Your task to perform on an android device: Go to display settings Image 0: 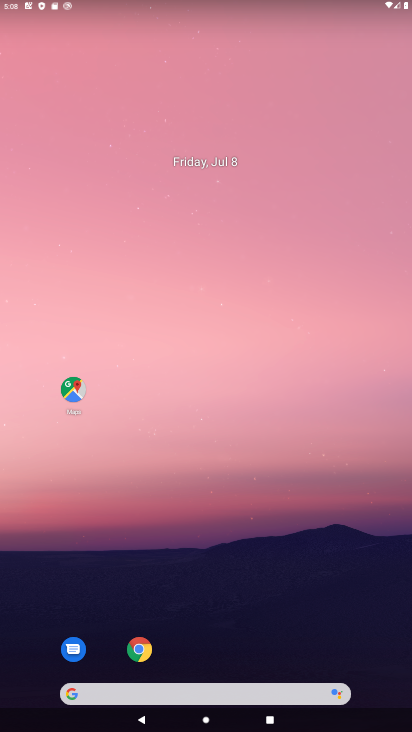
Step 0: drag from (291, 630) to (283, 123)
Your task to perform on an android device: Go to display settings Image 1: 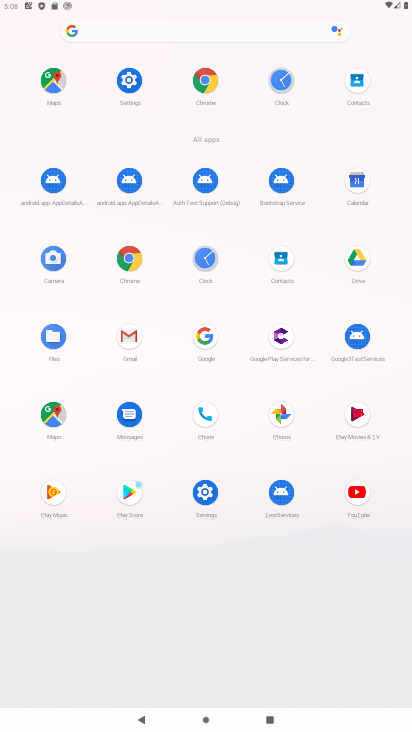
Step 1: click (114, 73)
Your task to perform on an android device: Go to display settings Image 2: 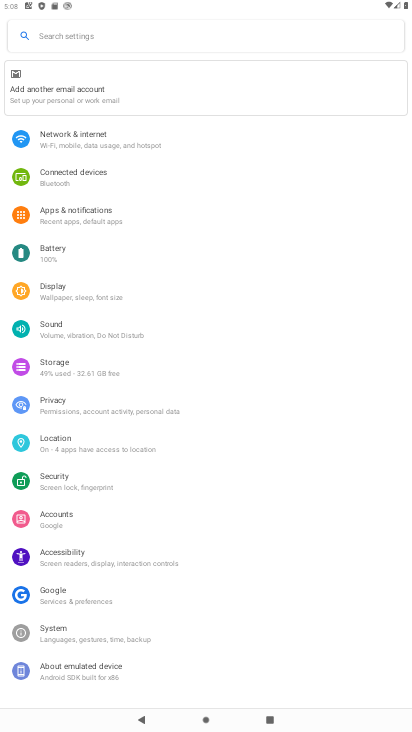
Step 2: click (80, 290)
Your task to perform on an android device: Go to display settings Image 3: 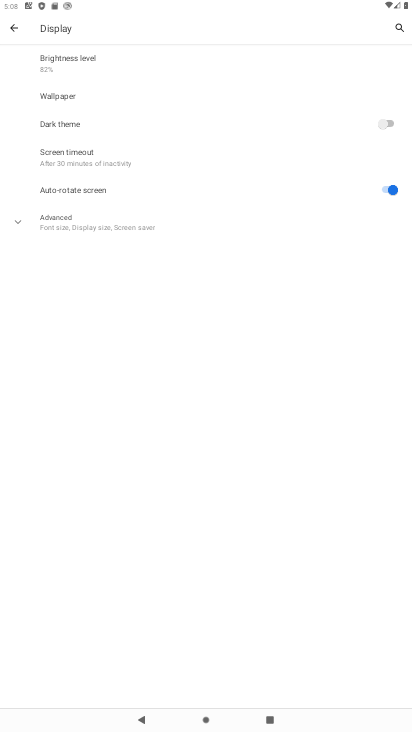
Step 3: task complete